Your task to perform on an android device: open app "eBay: The shopping marketplace" Image 0: 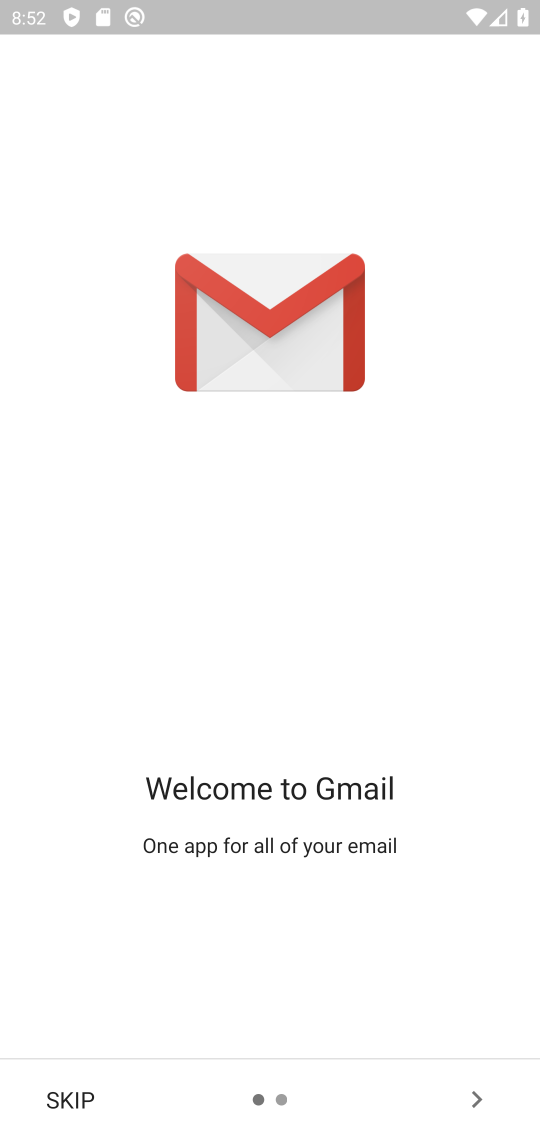
Step 0: press home button
Your task to perform on an android device: open app "eBay: The shopping marketplace" Image 1: 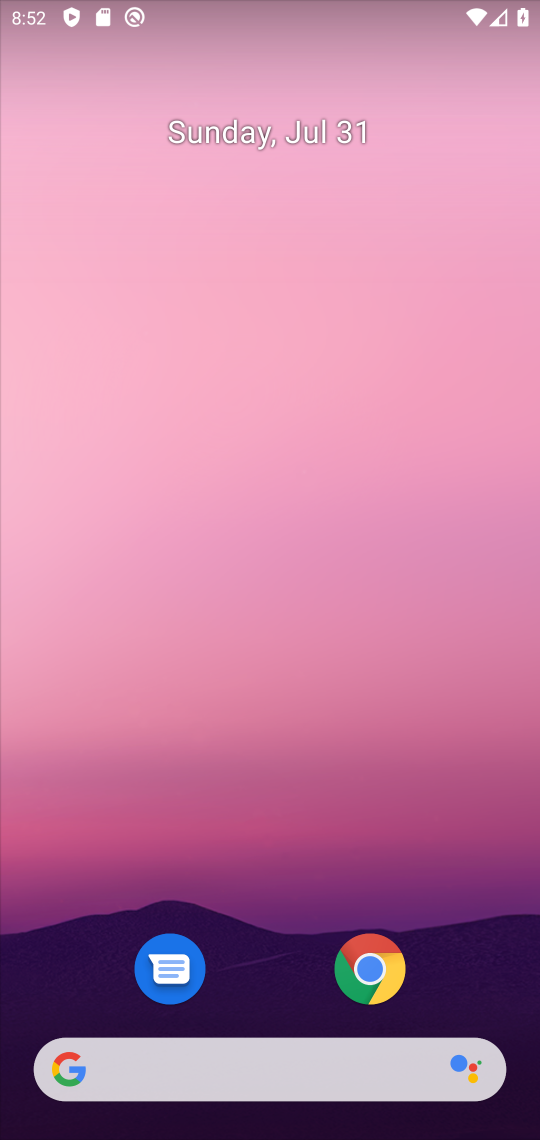
Step 1: drag from (217, 1015) to (216, 11)
Your task to perform on an android device: open app "eBay: The shopping marketplace" Image 2: 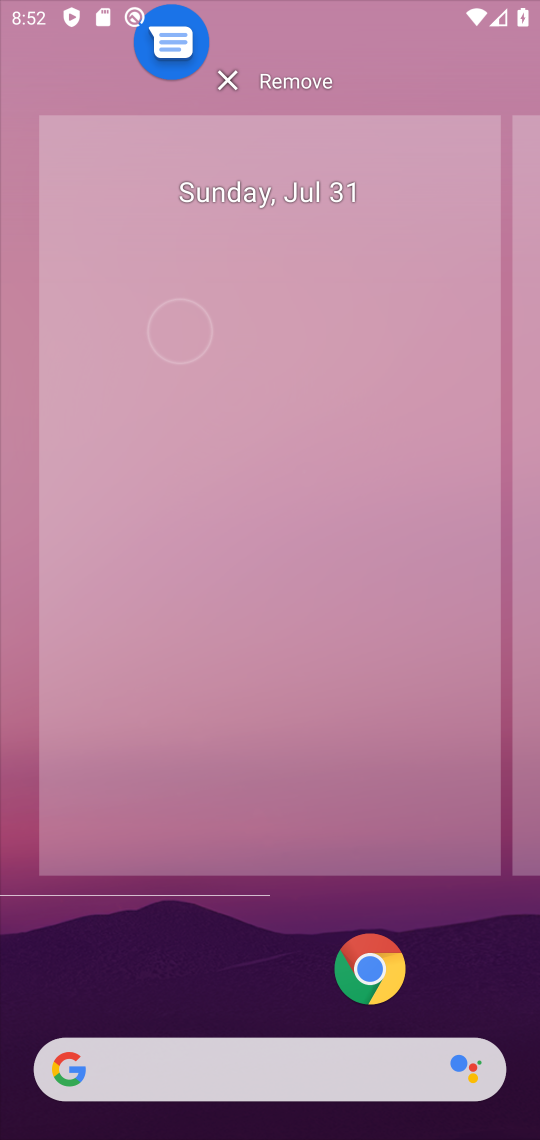
Step 2: click (312, 489)
Your task to perform on an android device: open app "eBay: The shopping marketplace" Image 3: 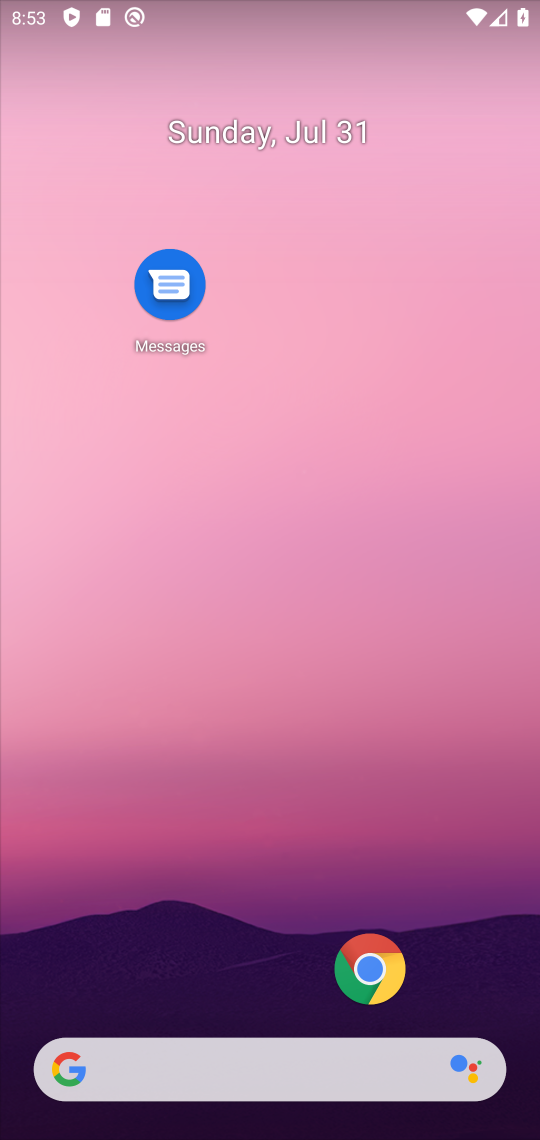
Step 3: drag from (210, 1010) to (429, 67)
Your task to perform on an android device: open app "eBay: The shopping marketplace" Image 4: 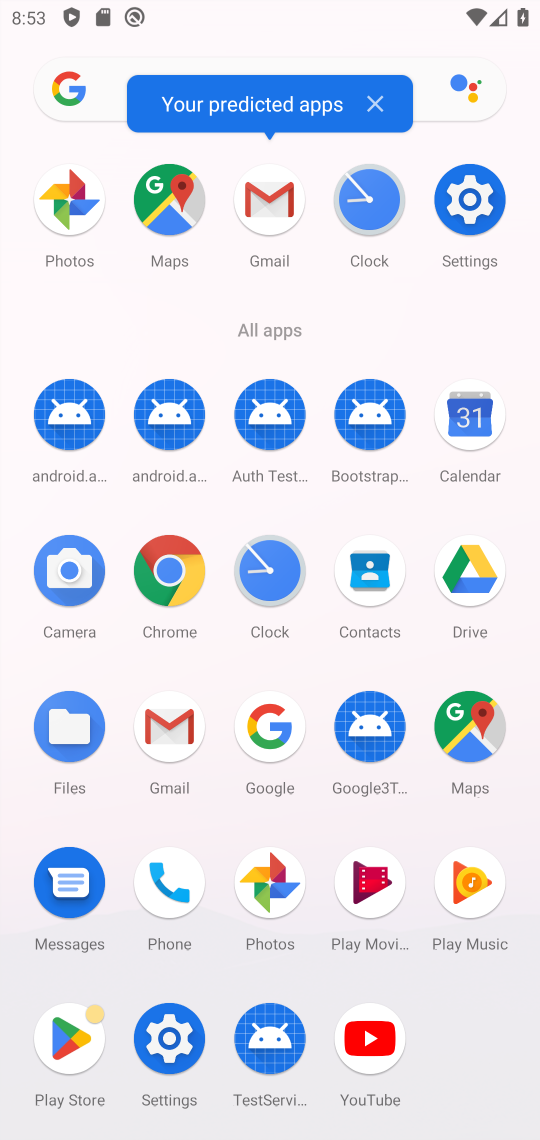
Step 4: click (76, 1061)
Your task to perform on an android device: open app "eBay: The shopping marketplace" Image 5: 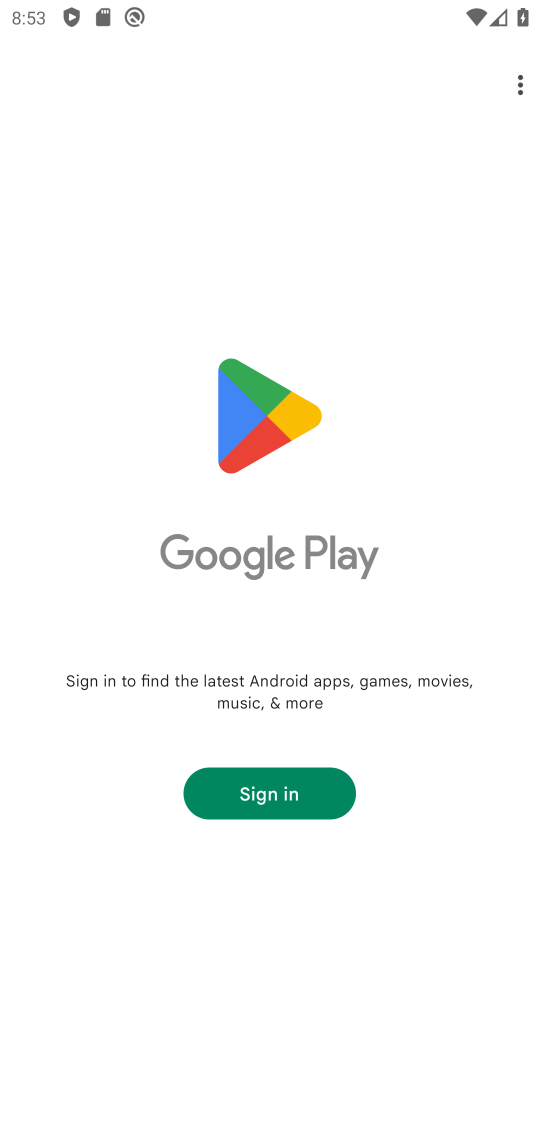
Step 5: click (259, 787)
Your task to perform on an android device: open app "eBay: The shopping marketplace" Image 6: 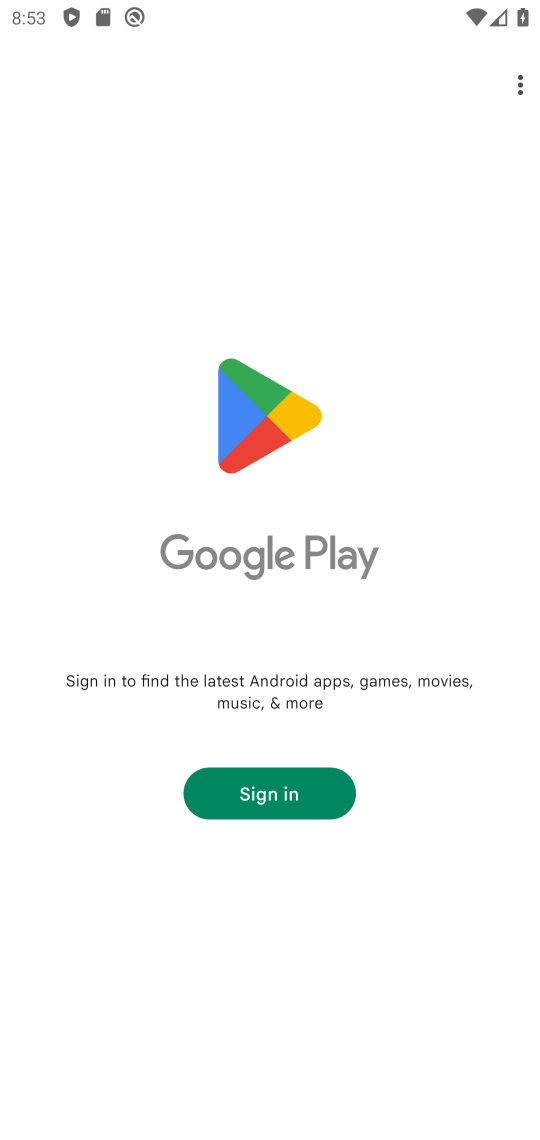
Step 6: task complete